Your task to perform on an android device: Turn off the flashlight Image 0: 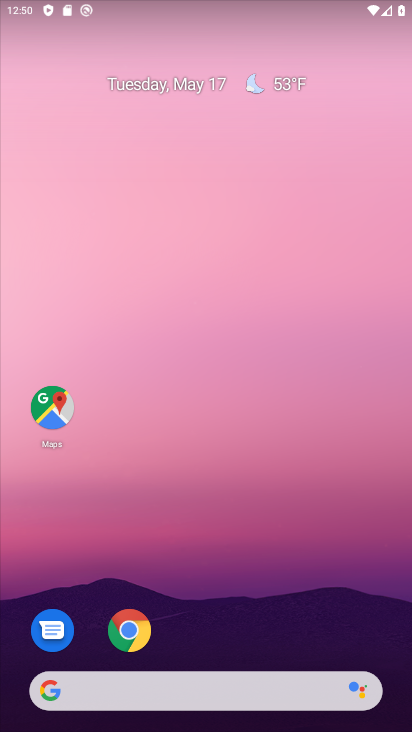
Step 0: drag from (255, 650) to (254, 710)
Your task to perform on an android device: Turn off the flashlight Image 1: 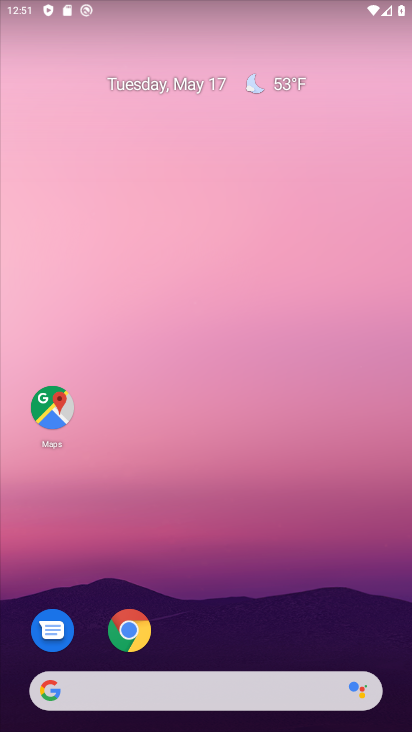
Step 1: task complete